Your task to perform on an android device: change the clock style Image 0: 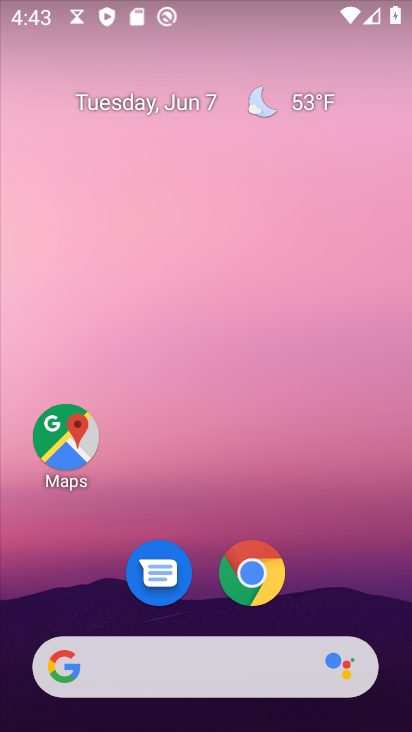
Step 0: drag from (241, 632) to (223, 237)
Your task to perform on an android device: change the clock style Image 1: 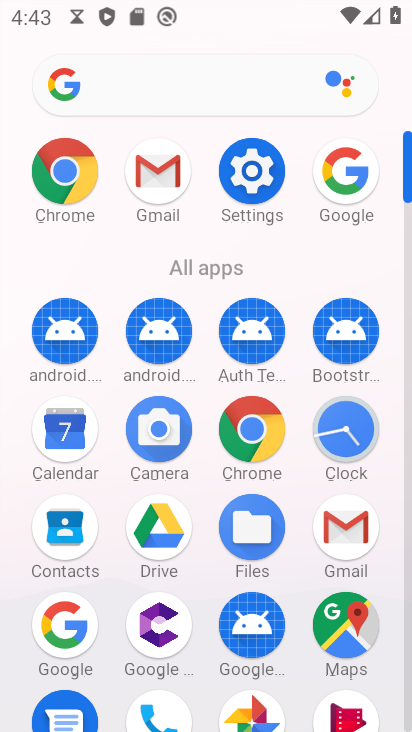
Step 1: click (354, 450)
Your task to perform on an android device: change the clock style Image 2: 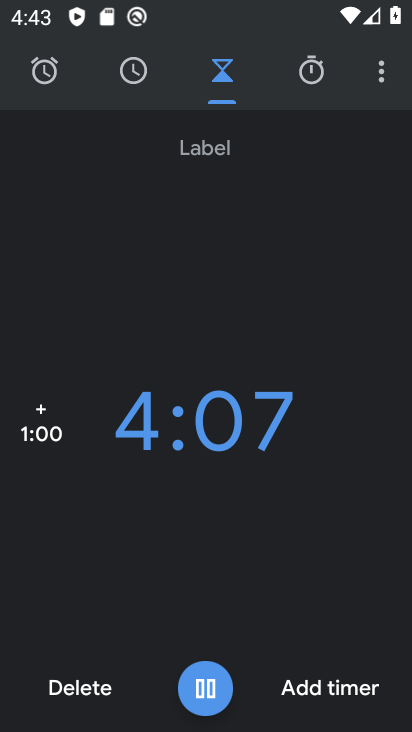
Step 2: click (359, 76)
Your task to perform on an android device: change the clock style Image 3: 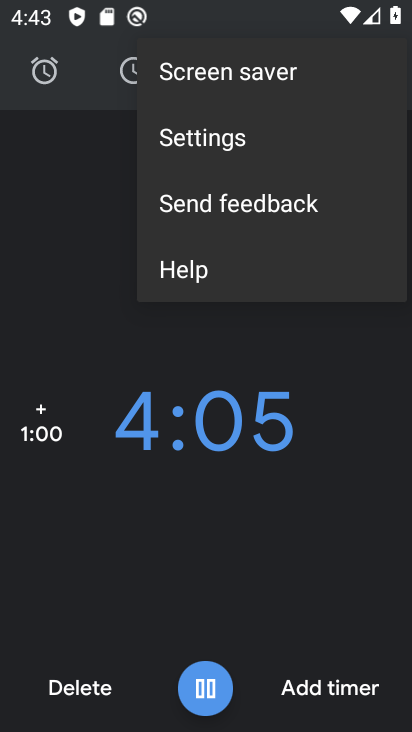
Step 3: click (237, 142)
Your task to perform on an android device: change the clock style Image 4: 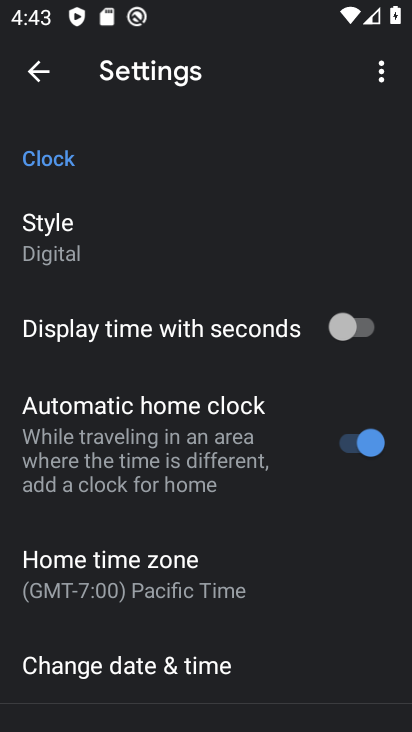
Step 4: click (49, 250)
Your task to perform on an android device: change the clock style Image 5: 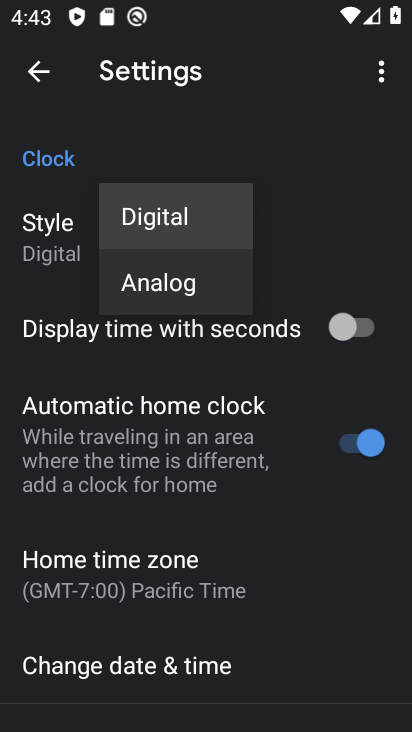
Step 5: click (146, 289)
Your task to perform on an android device: change the clock style Image 6: 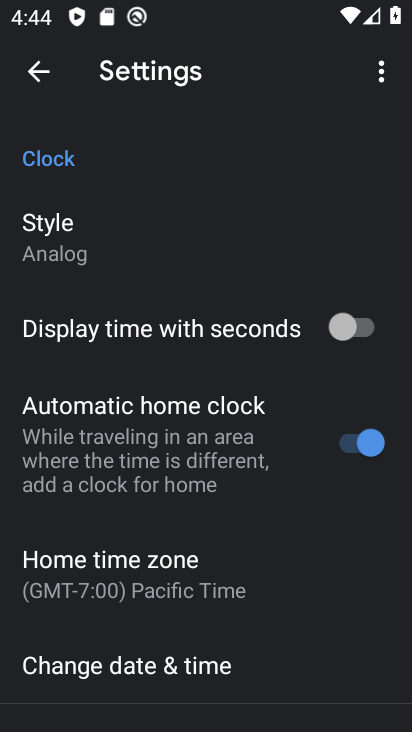
Step 6: task complete